Your task to perform on an android device: visit the assistant section in the google photos Image 0: 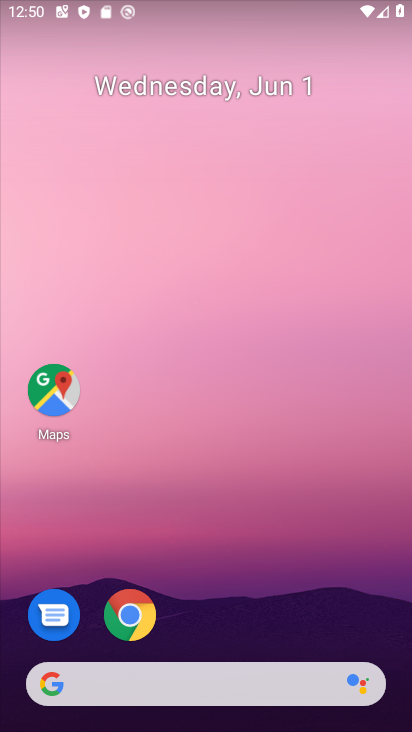
Step 0: task complete